Your task to perform on an android device: Open Amazon Image 0: 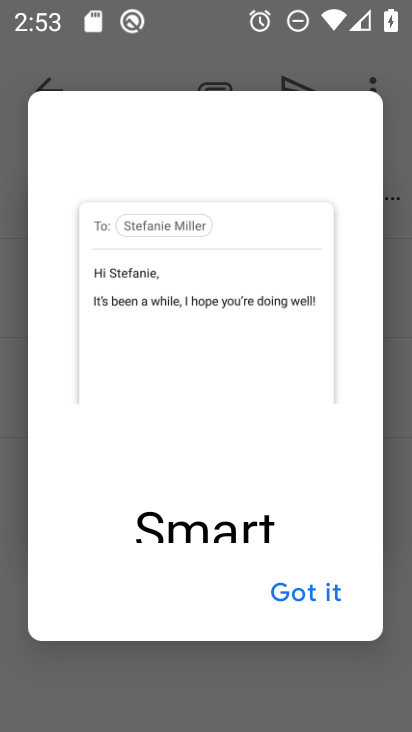
Step 0: press home button
Your task to perform on an android device: Open Amazon Image 1: 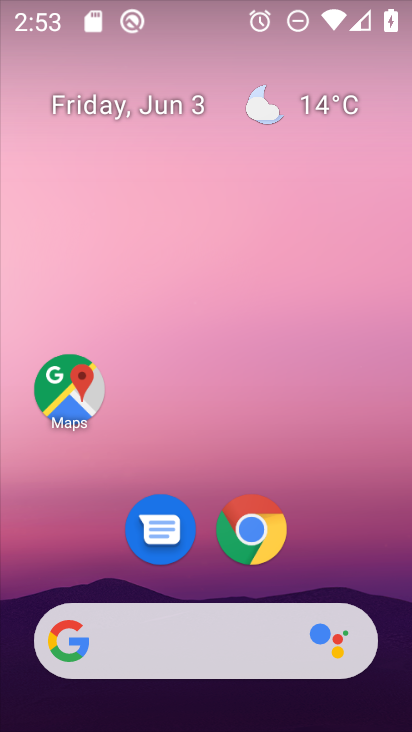
Step 1: drag from (361, 567) to (343, 166)
Your task to perform on an android device: Open Amazon Image 2: 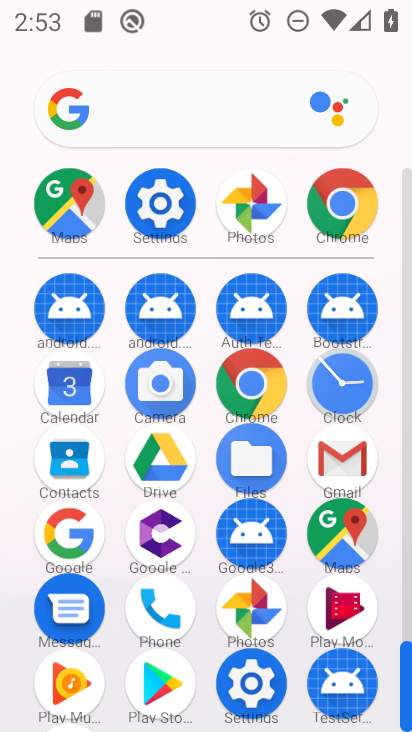
Step 2: click (273, 388)
Your task to perform on an android device: Open Amazon Image 3: 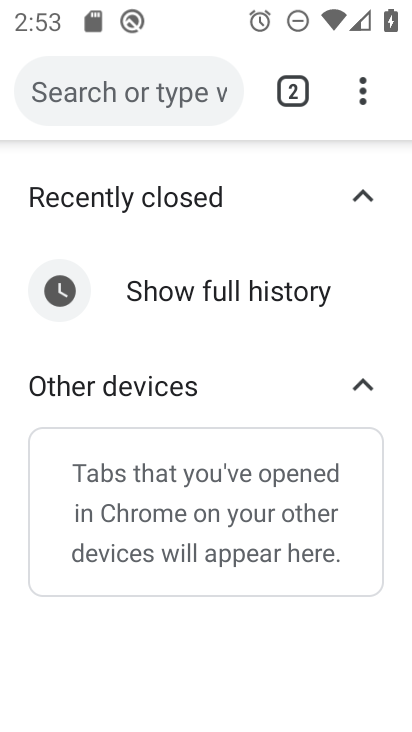
Step 3: click (176, 103)
Your task to perform on an android device: Open Amazon Image 4: 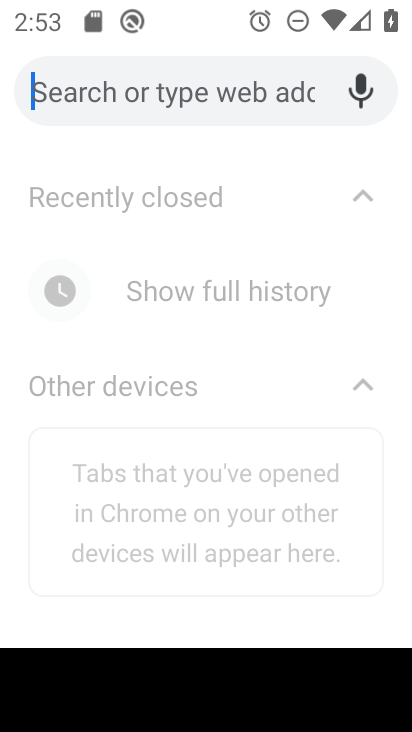
Step 4: type "amazon"
Your task to perform on an android device: Open Amazon Image 5: 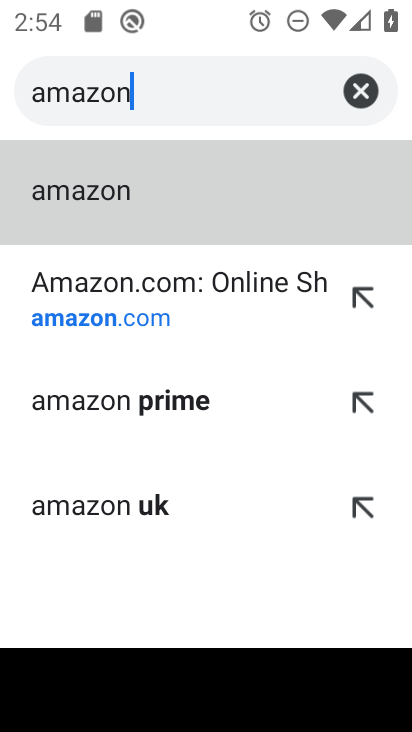
Step 5: click (162, 217)
Your task to perform on an android device: Open Amazon Image 6: 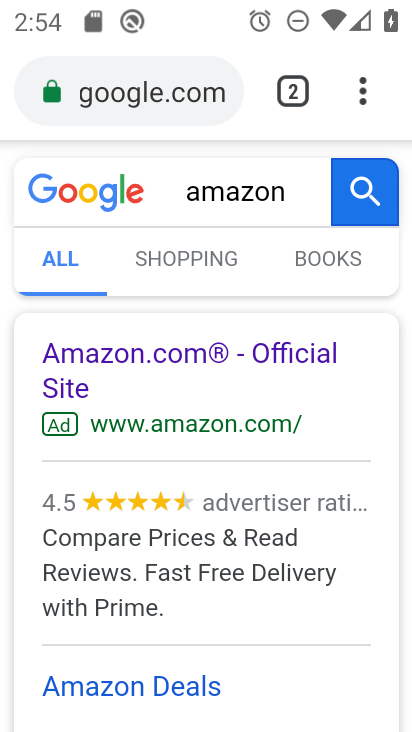
Step 6: task complete